Your task to perform on an android device: all mails in gmail Image 0: 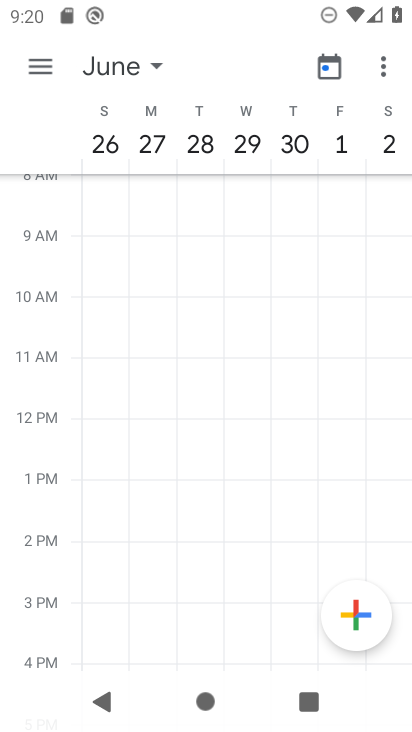
Step 0: press home button
Your task to perform on an android device: all mails in gmail Image 1: 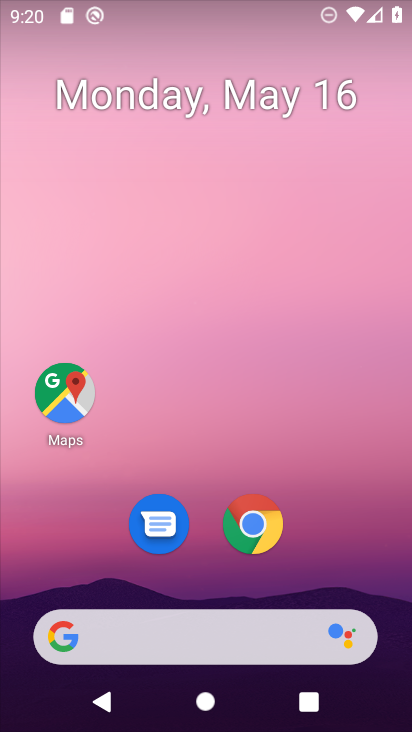
Step 1: drag from (330, 502) to (263, 30)
Your task to perform on an android device: all mails in gmail Image 2: 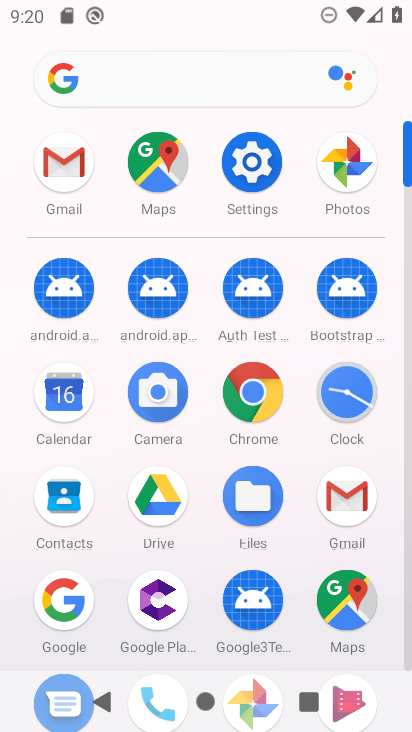
Step 2: click (69, 158)
Your task to perform on an android device: all mails in gmail Image 3: 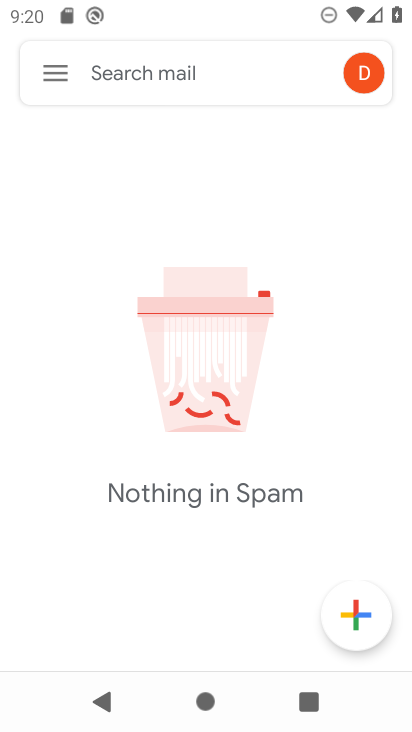
Step 3: click (47, 59)
Your task to perform on an android device: all mails in gmail Image 4: 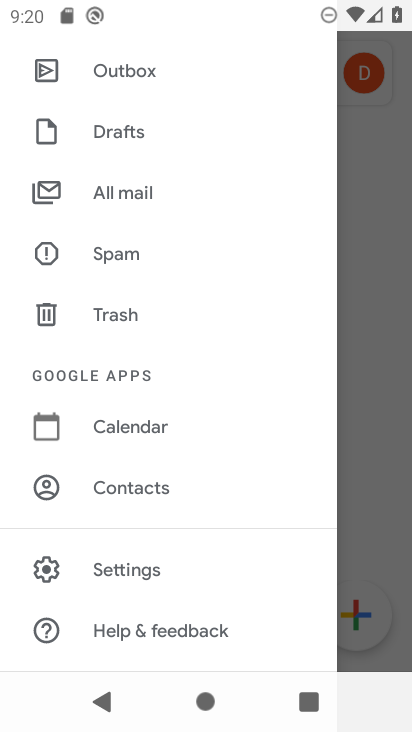
Step 4: click (122, 188)
Your task to perform on an android device: all mails in gmail Image 5: 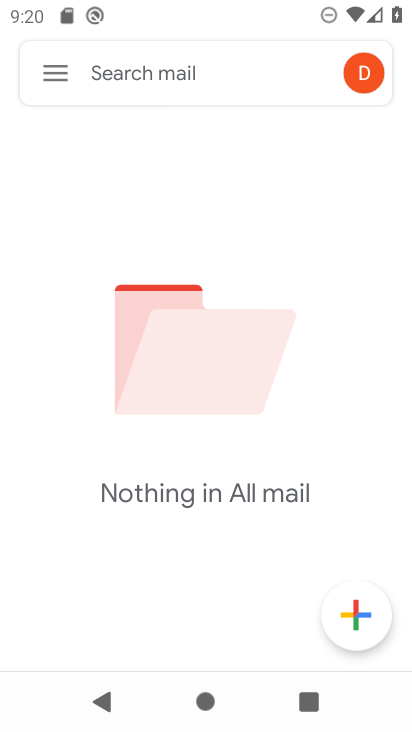
Step 5: task complete